Your task to perform on an android device: What's on my calendar today? Image 0: 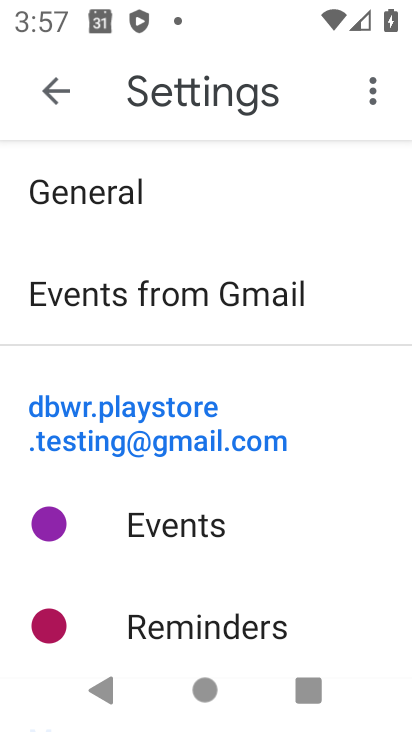
Step 0: press home button
Your task to perform on an android device: What's on my calendar today? Image 1: 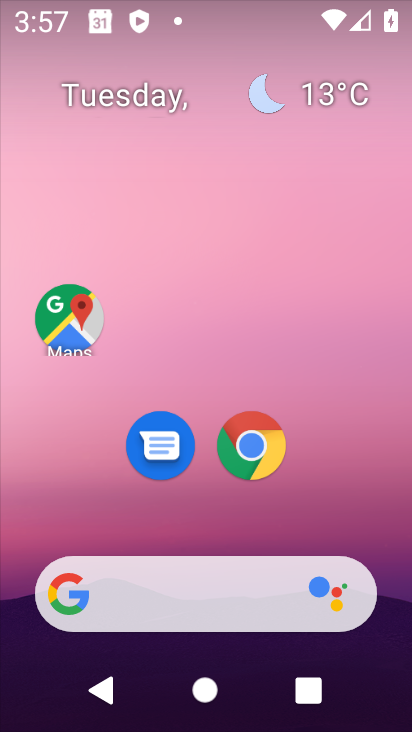
Step 1: drag from (162, 721) to (218, 82)
Your task to perform on an android device: What's on my calendar today? Image 2: 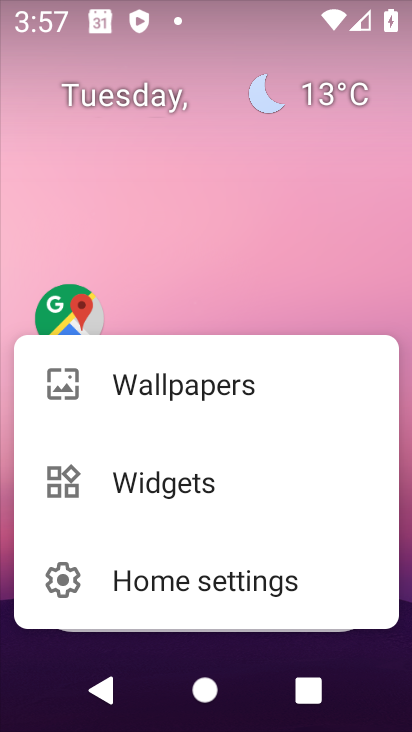
Step 2: drag from (167, 715) to (212, 21)
Your task to perform on an android device: What's on my calendar today? Image 3: 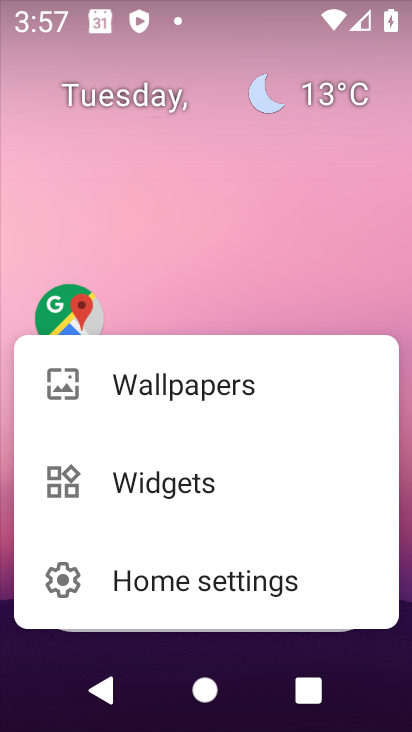
Step 3: drag from (170, 726) to (156, 62)
Your task to perform on an android device: What's on my calendar today? Image 4: 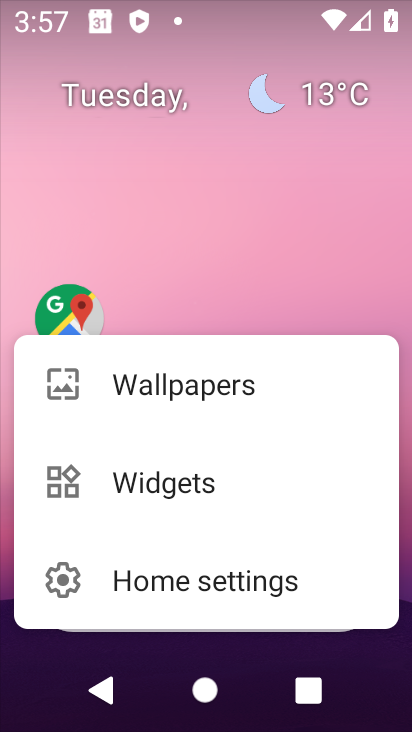
Step 4: press home button
Your task to perform on an android device: What's on my calendar today? Image 5: 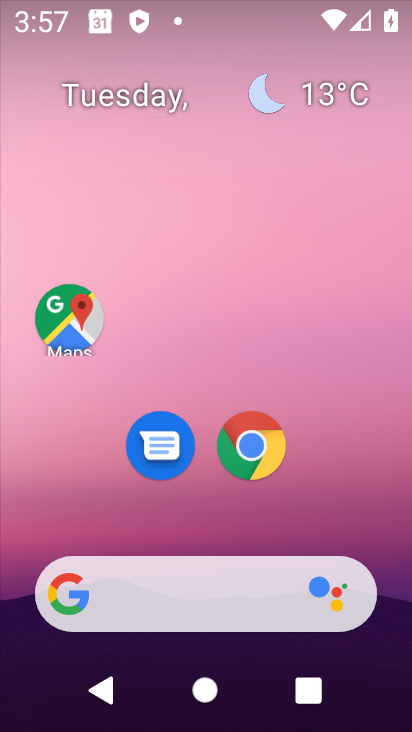
Step 5: drag from (152, 731) to (148, 109)
Your task to perform on an android device: What's on my calendar today? Image 6: 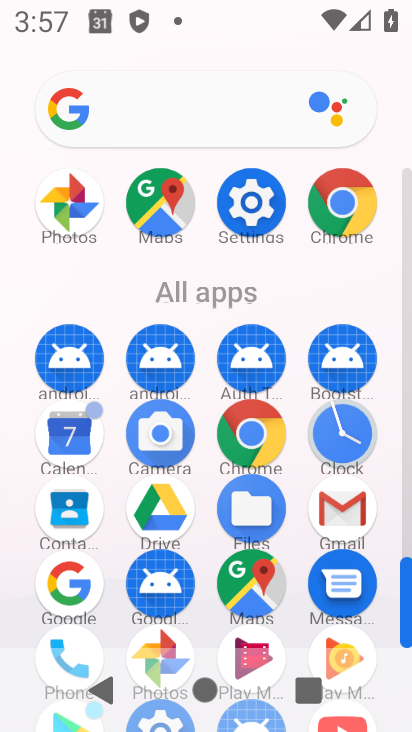
Step 6: click (45, 434)
Your task to perform on an android device: What's on my calendar today? Image 7: 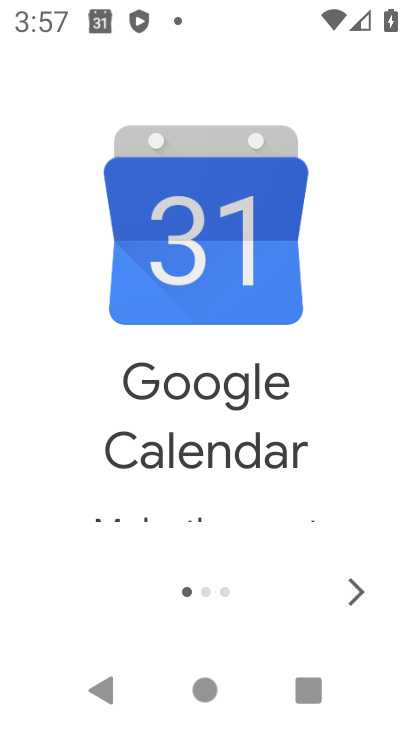
Step 7: click (357, 609)
Your task to perform on an android device: What's on my calendar today? Image 8: 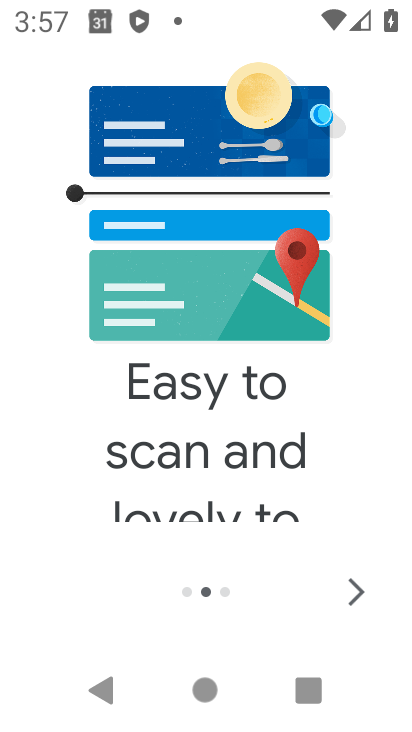
Step 8: click (357, 609)
Your task to perform on an android device: What's on my calendar today? Image 9: 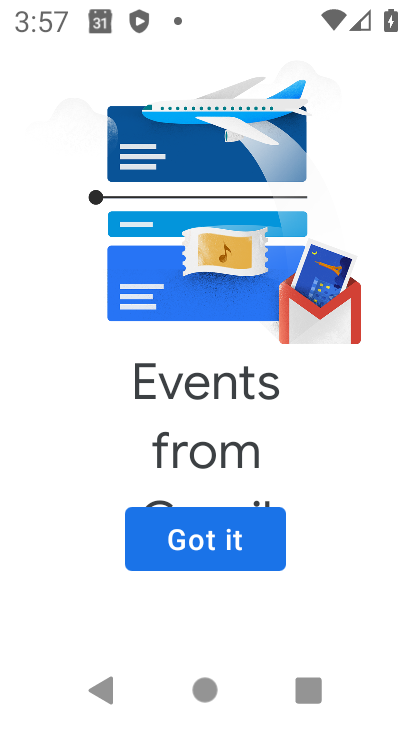
Step 9: click (198, 521)
Your task to perform on an android device: What's on my calendar today? Image 10: 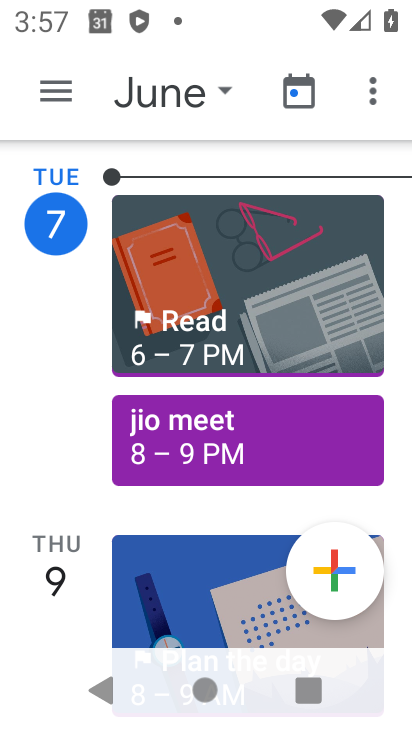
Step 10: click (248, 335)
Your task to perform on an android device: What's on my calendar today? Image 11: 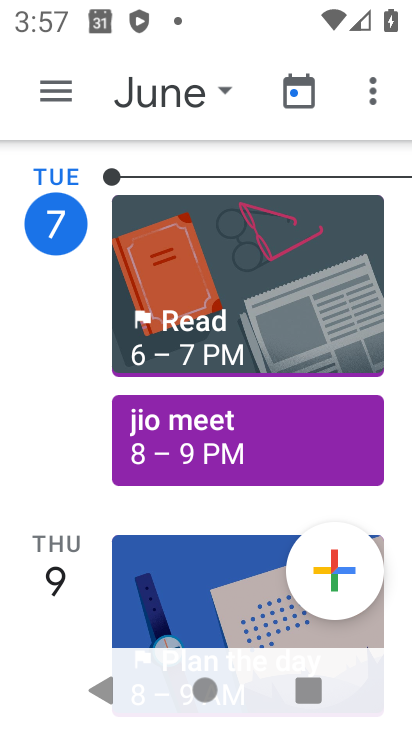
Step 11: click (65, 101)
Your task to perform on an android device: What's on my calendar today? Image 12: 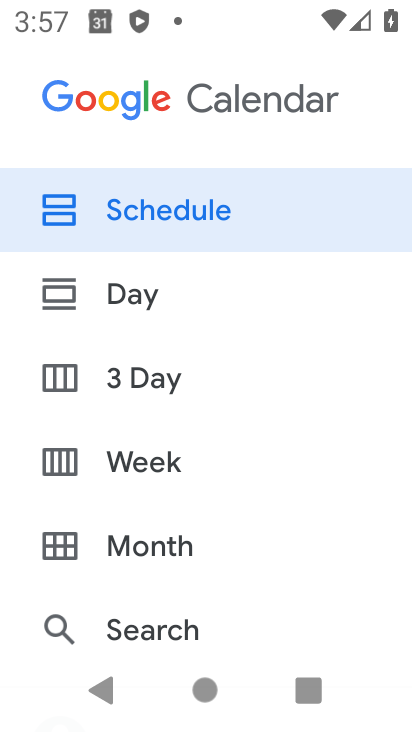
Step 12: click (230, 209)
Your task to perform on an android device: What's on my calendar today? Image 13: 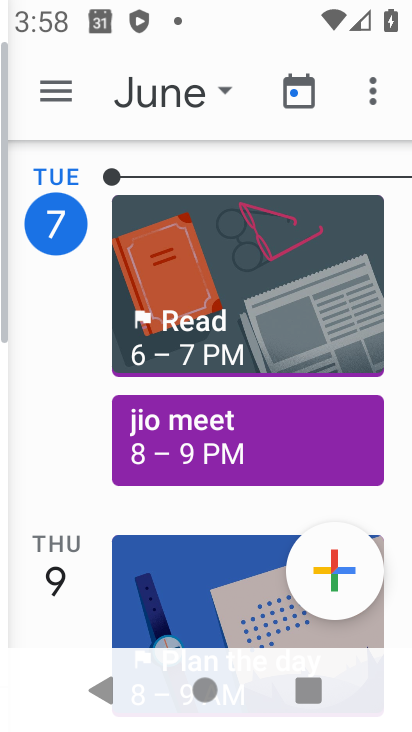
Step 13: click (183, 307)
Your task to perform on an android device: What's on my calendar today? Image 14: 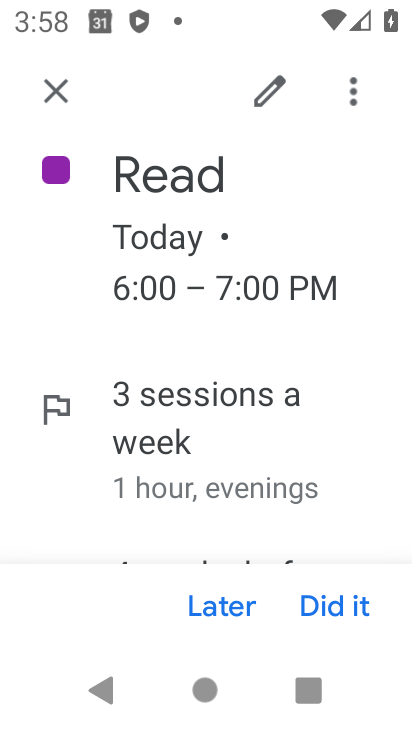
Step 14: task complete